Your task to perform on an android device: Open accessibility settings Image 0: 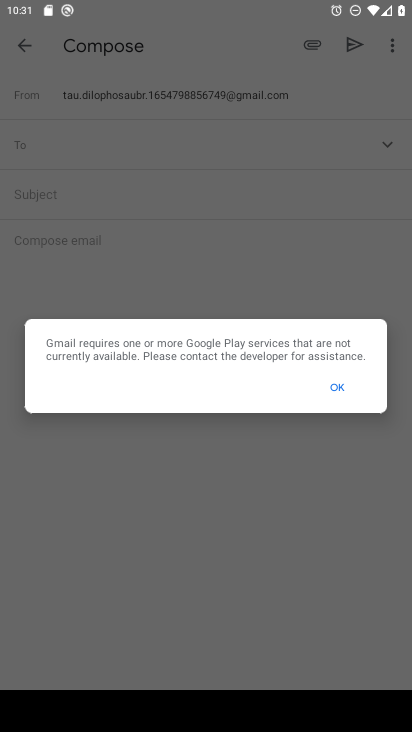
Step 0: press home button
Your task to perform on an android device: Open accessibility settings Image 1: 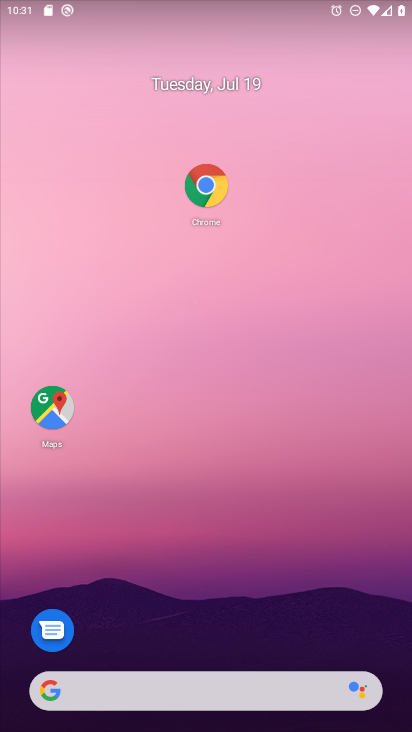
Step 1: drag from (213, 622) to (334, 68)
Your task to perform on an android device: Open accessibility settings Image 2: 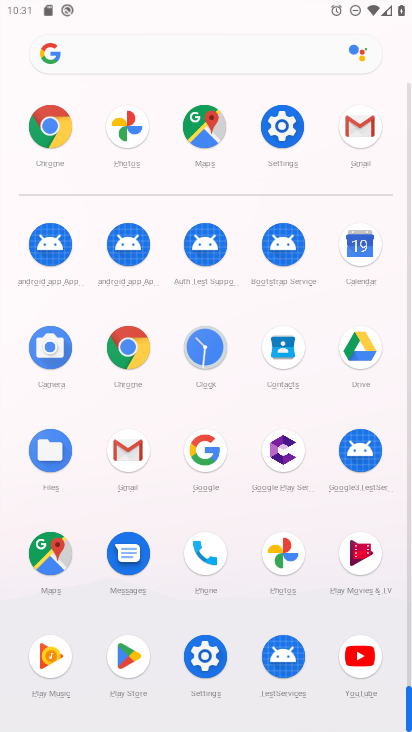
Step 2: click (268, 140)
Your task to perform on an android device: Open accessibility settings Image 3: 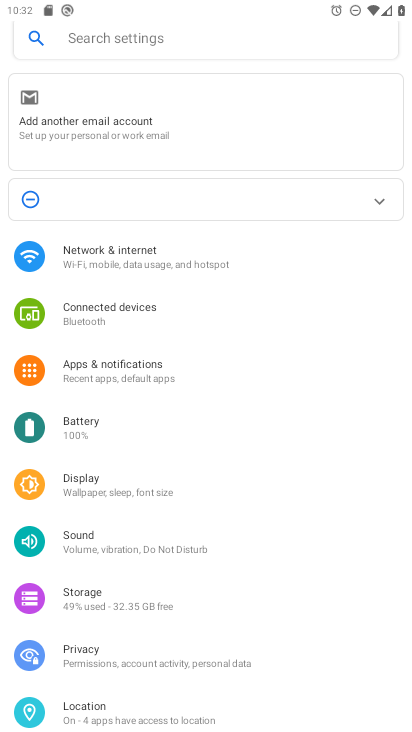
Step 3: drag from (93, 570) to (141, 208)
Your task to perform on an android device: Open accessibility settings Image 4: 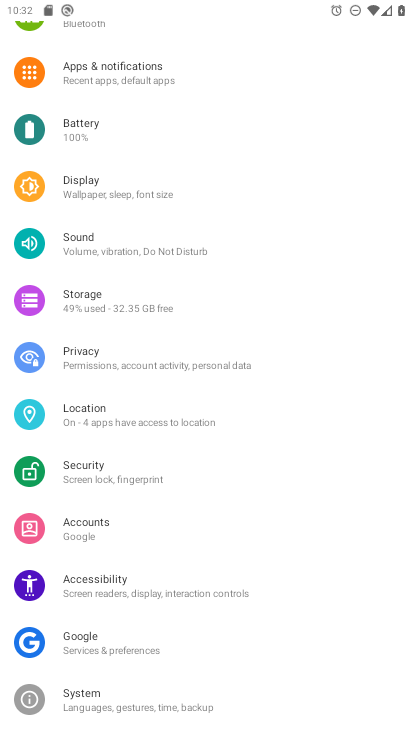
Step 4: click (163, 583)
Your task to perform on an android device: Open accessibility settings Image 5: 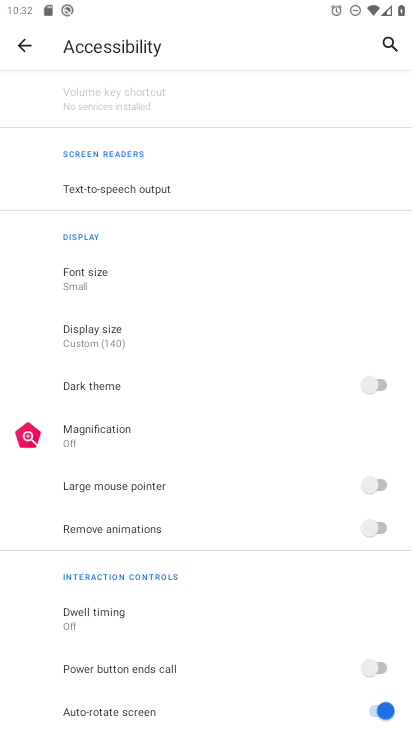
Step 5: task complete